Your task to perform on an android device: allow notifications from all sites in the chrome app Image 0: 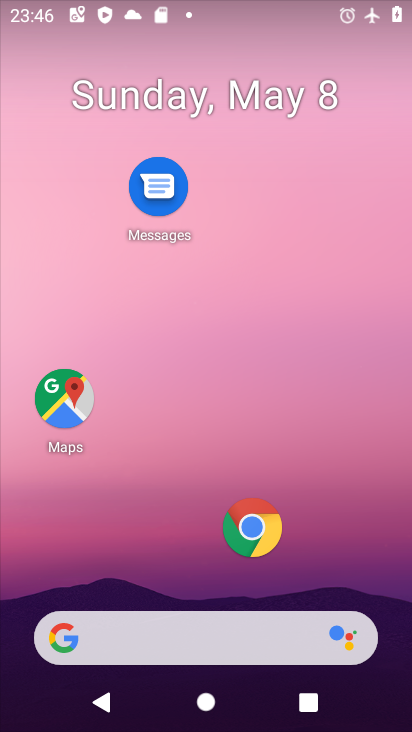
Step 0: click (251, 527)
Your task to perform on an android device: allow notifications from all sites in the chrome app Image 1: 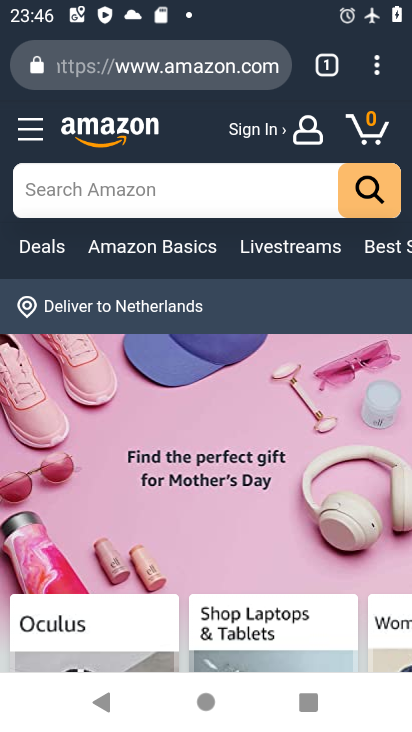
Step 1: click (370, 65)
Your task to perform on an android device: allow notifications from all sites in the chrome app Image 2: 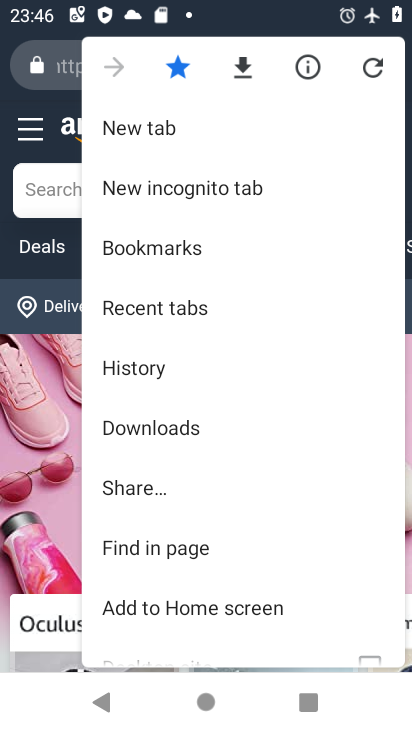
Step 2: drag from (217, 463) to (244, 146)
Your task to perform on an android device: allow notifications from all sites in the chrome app Image 3: 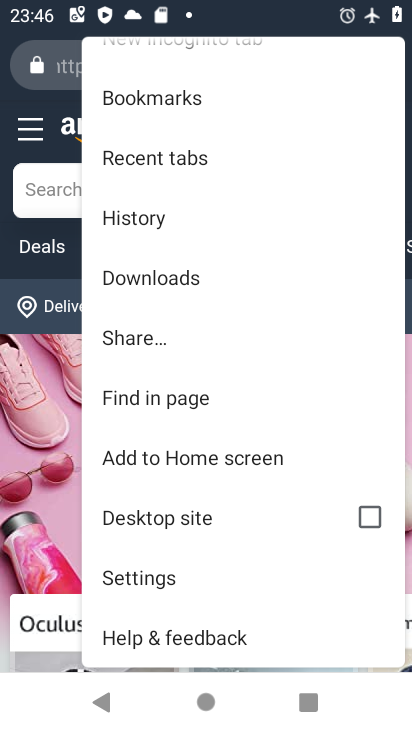
Step 3: click (186, 578)
Your task to perform on an android device: allow notifications from all sites in the chrome app Image 4: 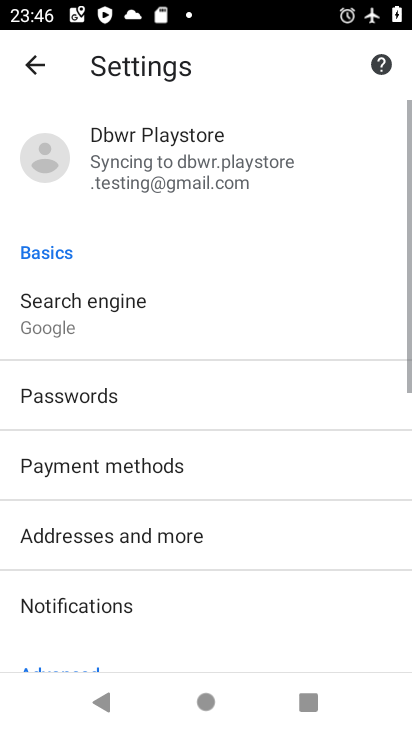
Step 4: drag from (173, 564) to (215, 162)
Your task to perform on an android device: allow notifications from all sites in the chrome app Image 5: 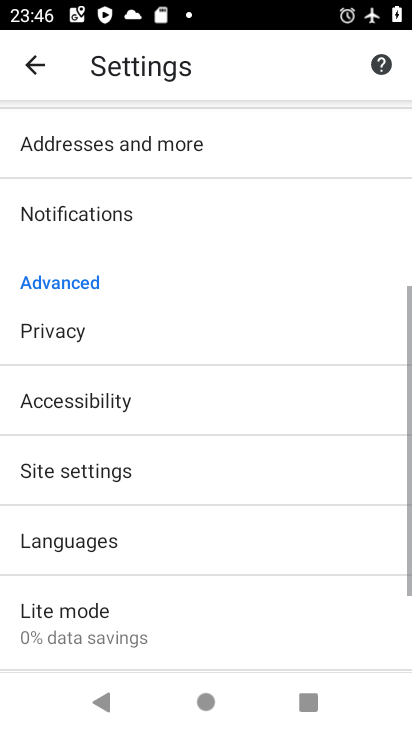
Step 5: click (86, 474)
Your task to perform on an android device: allow notifications from all sites in the chrome app Image 6: 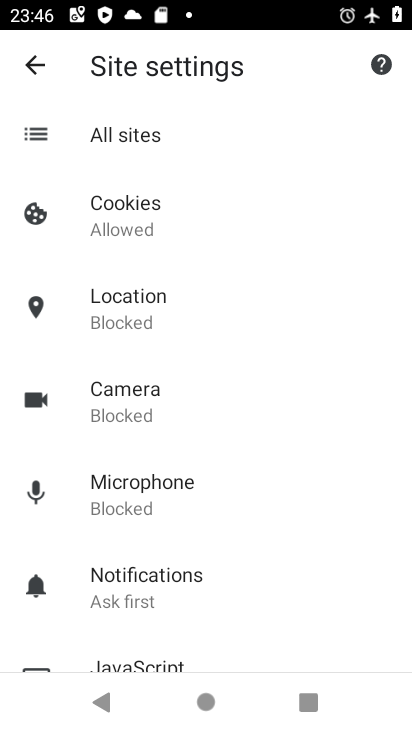
Step 6: drag from (206, 574) to (210, 190)
Your task to perform on an android device: allow notifications from all sites in the chrome app Image 7: 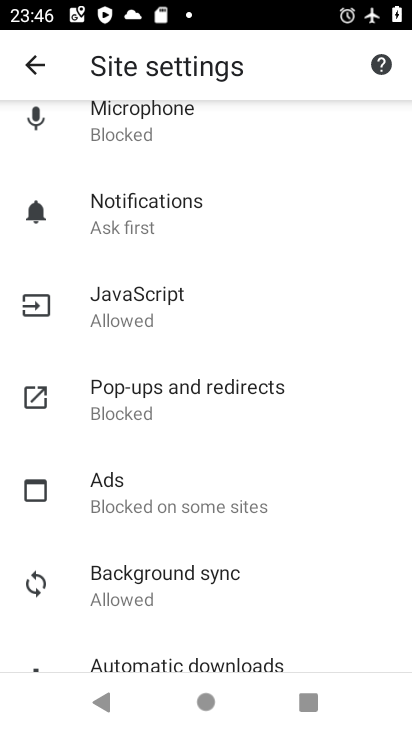
Step 7: drag from (217, 536) to (220, 454)
Your task to perform on an android device: allow notifications from all sites in the chrome app Image 8: 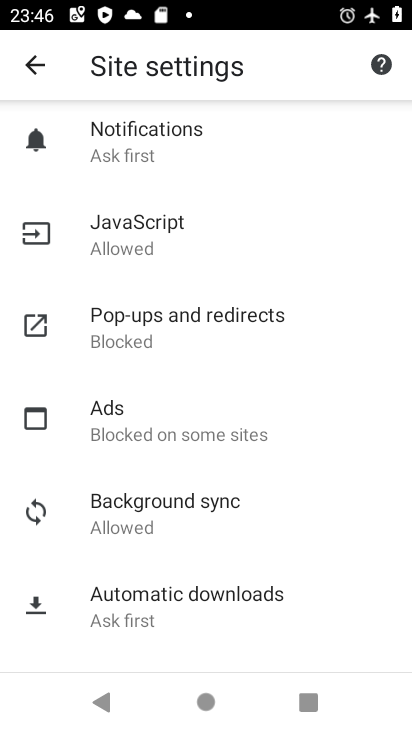
Step 8: click (102, 107)
Your task to perform on an android device: allow notifications from all sites in the chrome app Image 9: 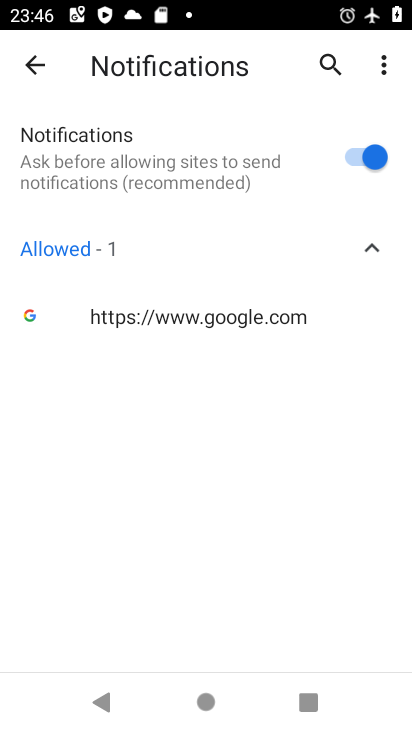
Step 9: task complete